Your task to perform on an android device: turn off sleep mode Image 0: 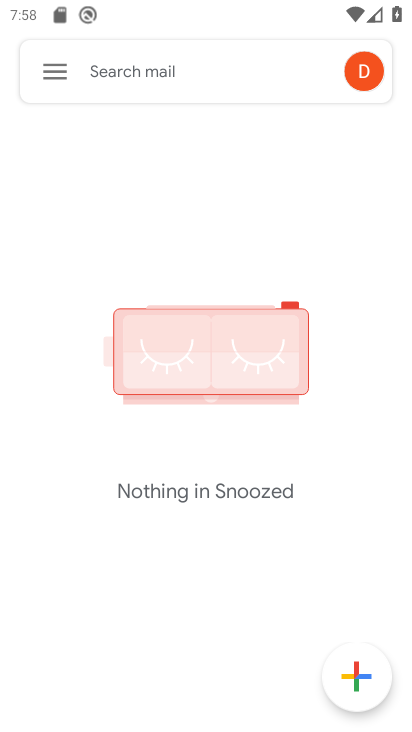
Step 0: press home button
Your task to perform on an android device: turn off sleep mode Image 1: 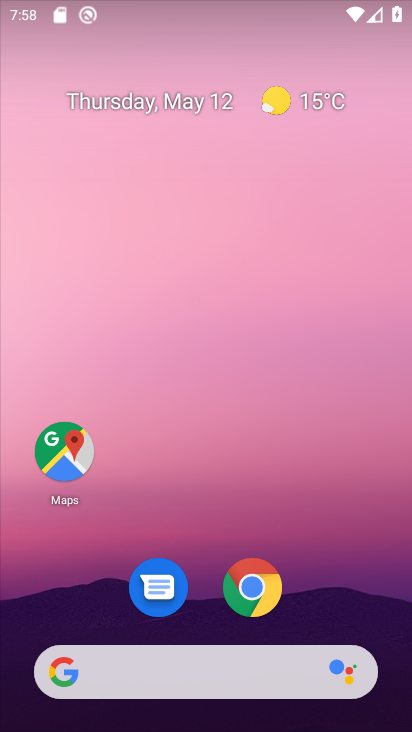
Step 1: drag from (390, 633) to (265, 99)
Your task to perform on an android device: turn off sleep mode Image 2: 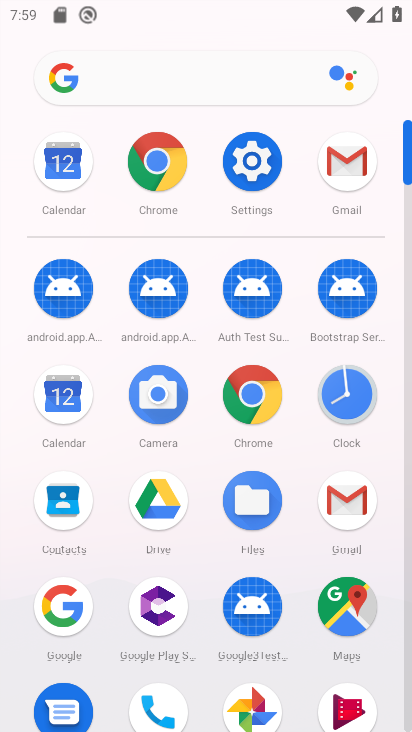
Step 2: click (240, 166)
Your task to perform on an android device: turn off sleep mode Image 3: 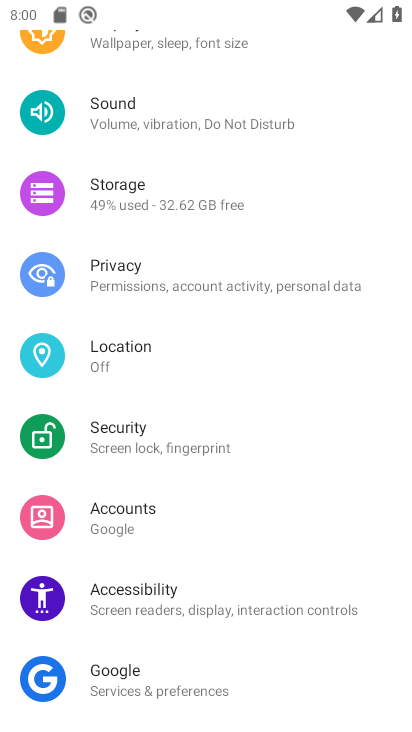
Step 3: task complete